Your task to perform on an android device: move an email to a new category in the gmail app Image 0: 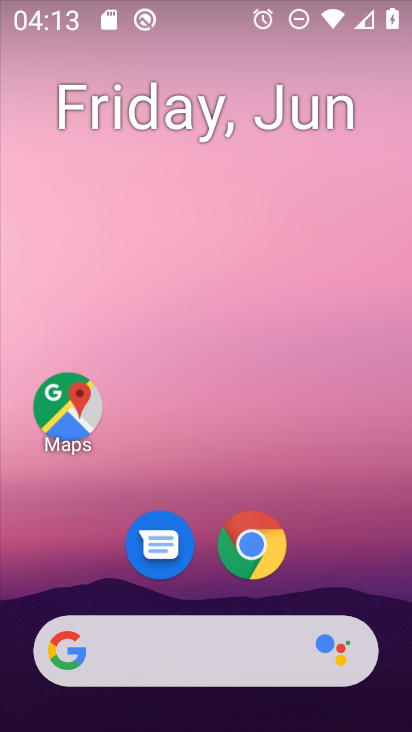
Step 0: drag from (303, 584) to (297, 35)
Your task to perform on an android device: move an email to a new category in the gmail app Image 1: 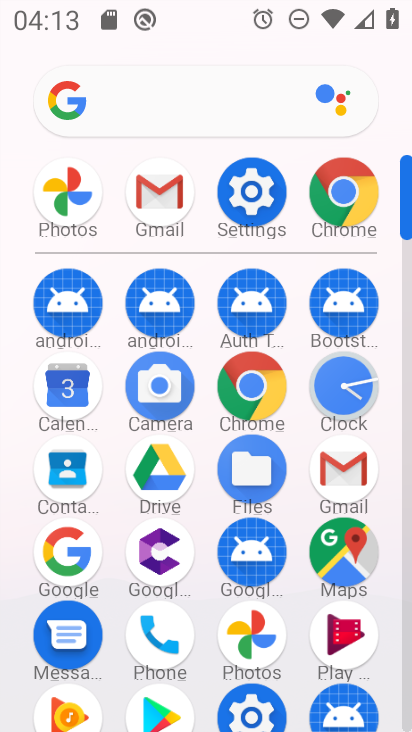
Step 1: click (337, 461)
Your task to perform on an android device: move an email to a new category in the gmail app Image 2: 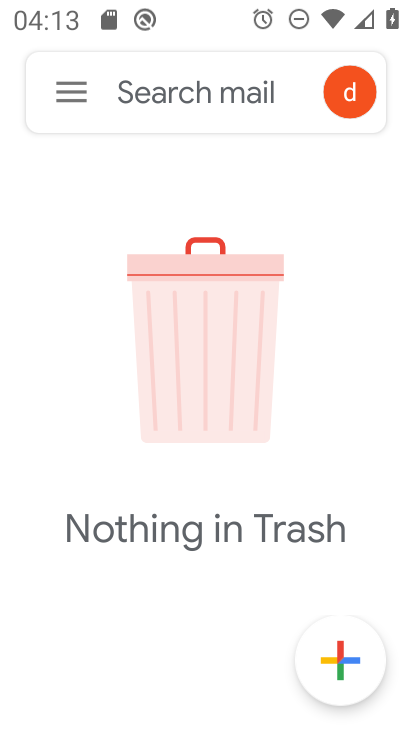
Step 2: click (57, 110)
Your task to perform on an android device: move an email to a new category in the gmail app Image 3: 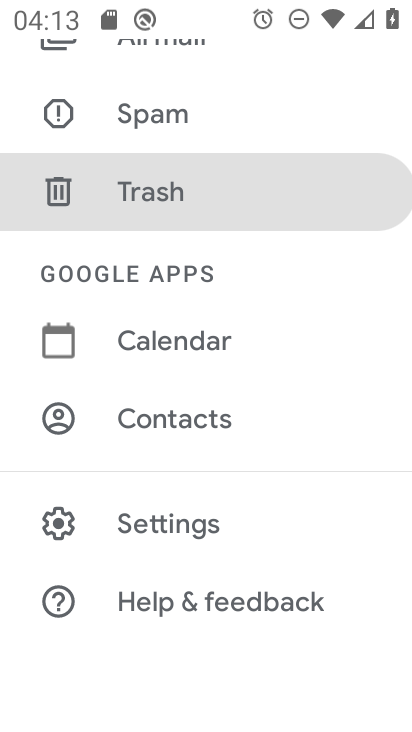
Step 3: drag from (230, 120) to (245, 336)
Your task to perform on an android device: move an email to a new category in the gmail app Image 4: 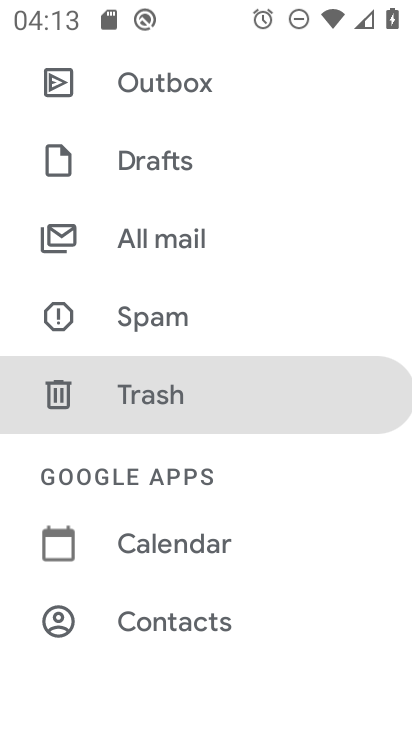
Step 4: click (208, 231)
Your task to perform on an android device: move an email to a new category in the gmail app Image 5: 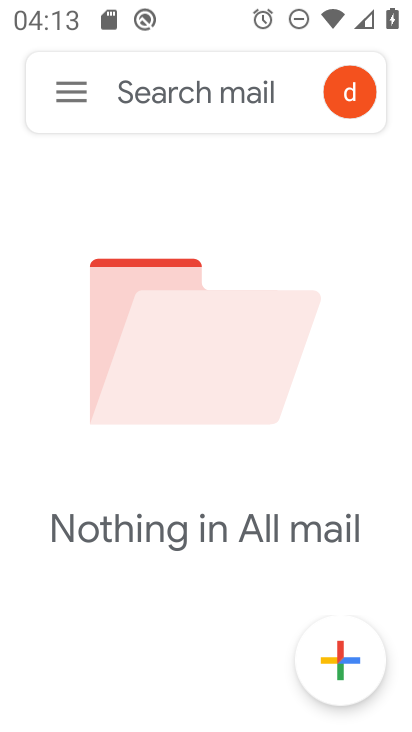
Step 5: task complete